Your task to perform on an android device: Open the calendar app, open the side menu, and click the "Day" option Image 0: 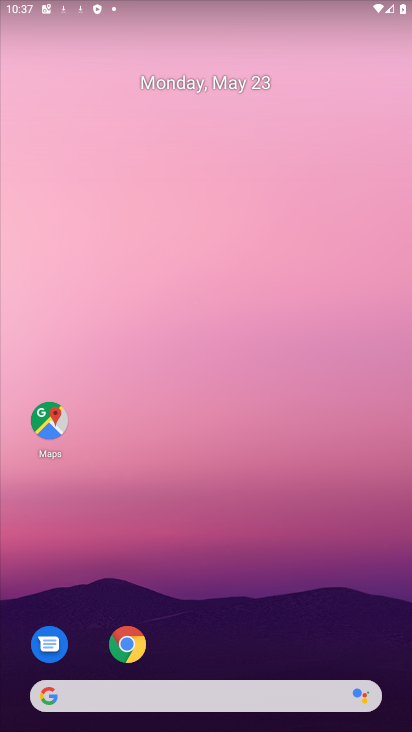
Step 0: press home button
Your task to perform on an android device: Open the calendar app, open the side menu, and click the "Day" option Image 1: 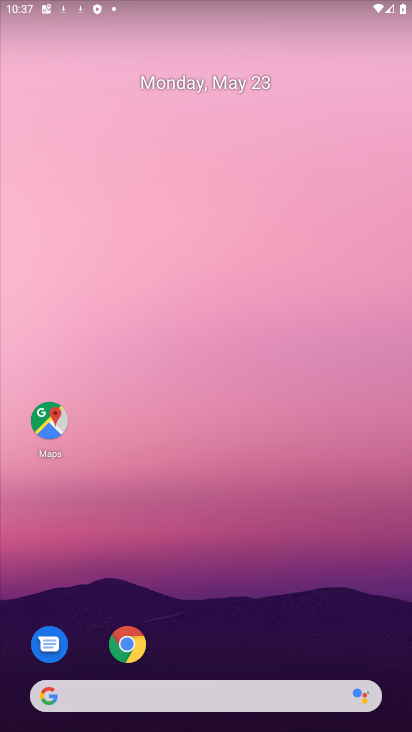
Step 1: drag from (232, 703) to (273, 135)
Your task to perform on an android device: Open the calendar app, open the side menu, and click the "Day" option Image 2: 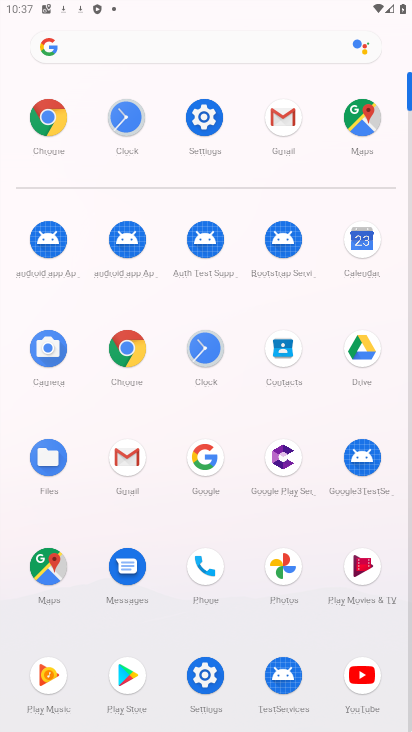
Step 2: click (362, 264)
Your task to perform on an android device: Open the calendar app, open the side menu, and click the "Day" option Image 3: 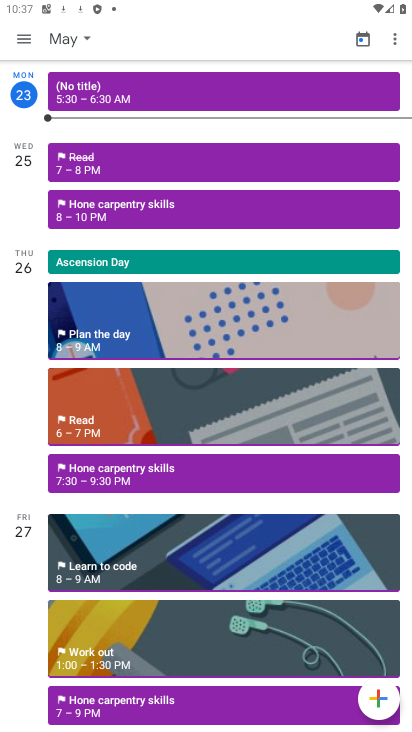
Step 3: click (27, 39)
Your task to perform on an android device: Open the calendar app, open the side menu, and click the "Day" option Image 4: 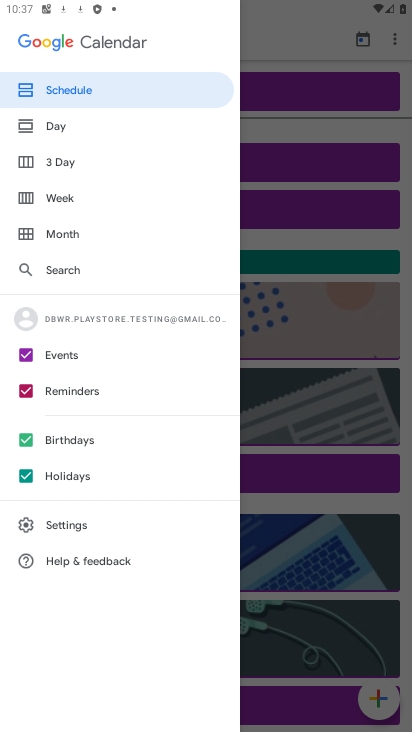
Step 4: click (68, 128)
Your task to perform on an android device: Open the calendar app, open the side menu, and click the "Day" option Image 5: 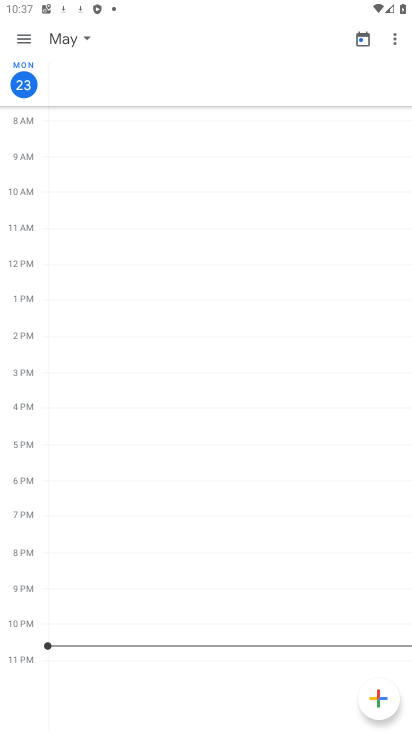
Step 5: task complete